Your task to perform on an android device: Toggle the flashlight Image 0: 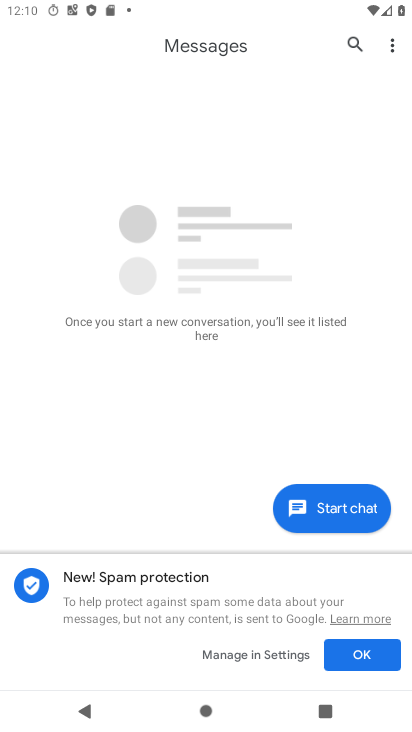
Step 0: press home button
Your task to perform on an android device: Toggle the flashlight Image 1: 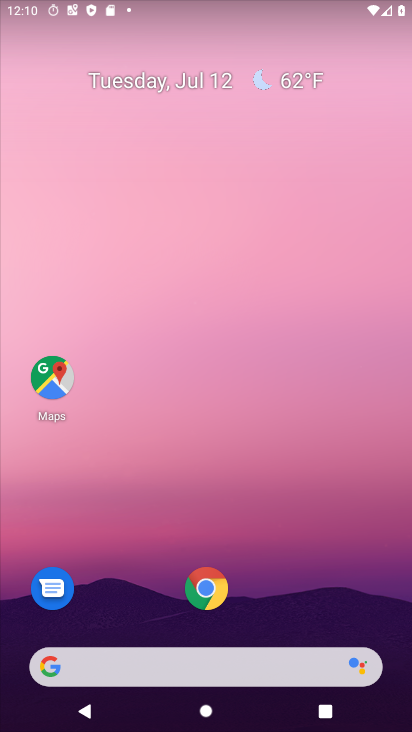
Step 1: drag from (182, 503) to (196, 25)
Your task to perform on an android device: Toggle the flashlight Image 2: 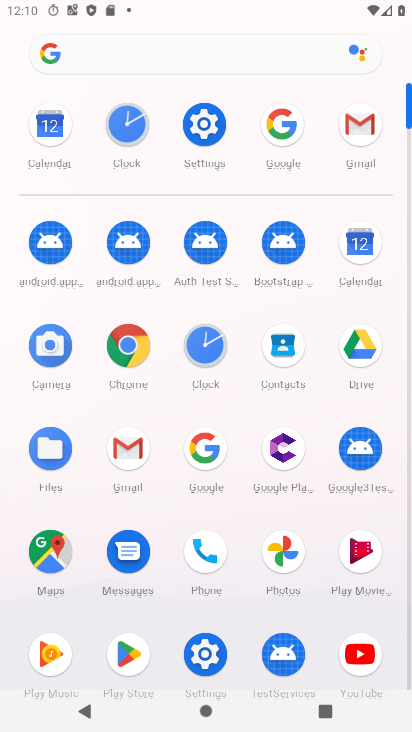
Step 2: click (199, 113)
Your task to perform on an android device: Toggle the flashlight Image 3: 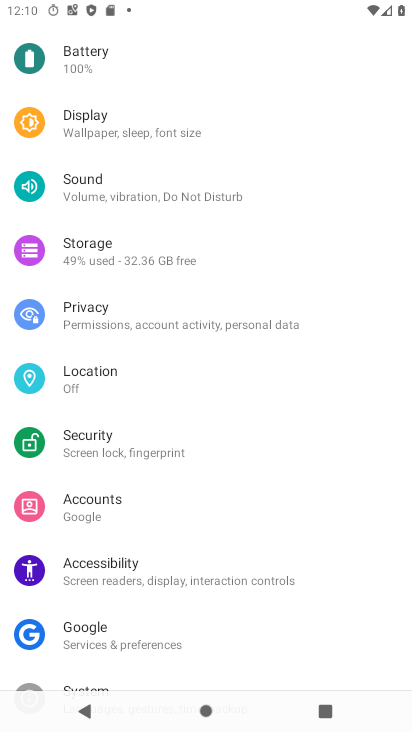
Step 3: task complete